Your task to perform on an android device: stop showing notifications on the lock screen Image 0: 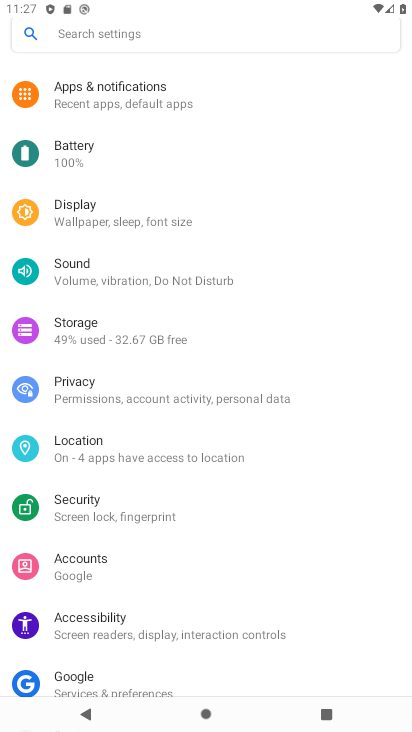
Step 0: click (159, 78)
Your task to perform on an android device: stop showing notifications on the lock screen Image 1: 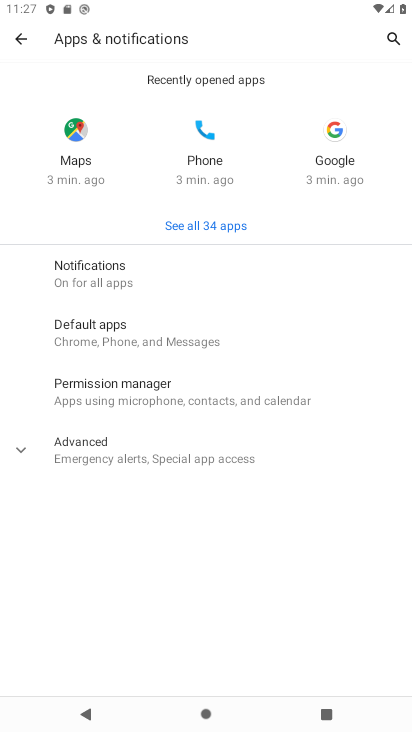
Step 1: click (19, 30)
Your task to perform on an android device: stop showing notifications on the lock screen Image 2: 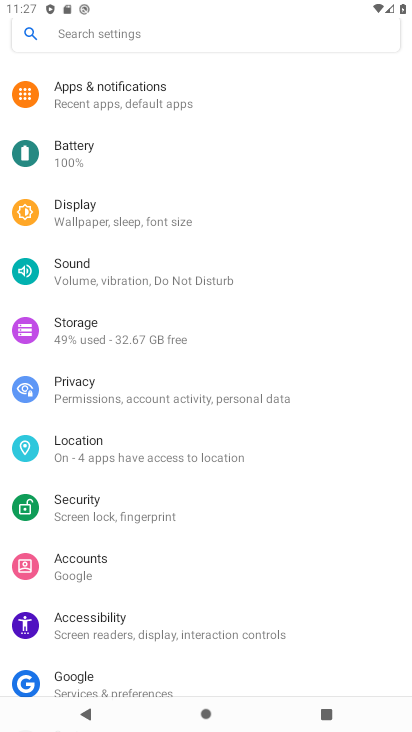
Step 2: click (69, 90)
Your task to perform on an android device: stop showing notifications on the lock screen Image 3: 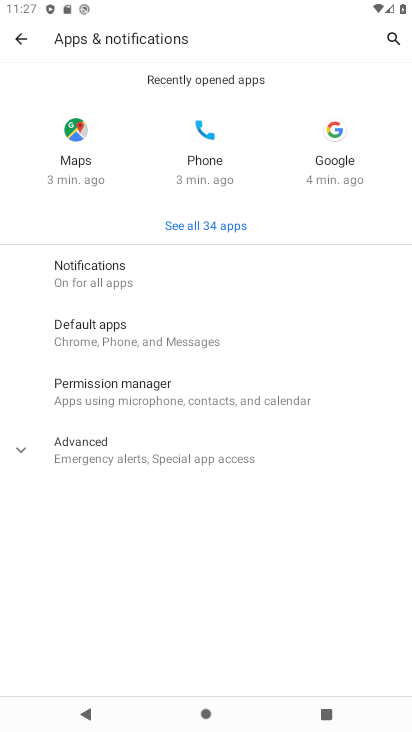
Step 3: click (83, 281)
Your task to perform on an android device: stop showing notifications on the lock screen Image 4: 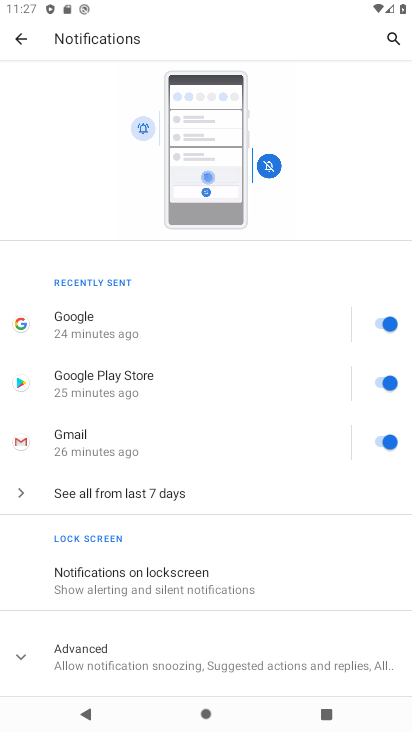
Step 4: click (160, 597)
Your task to perform on an android device: stop showing notifications on the lock screen Image 5: 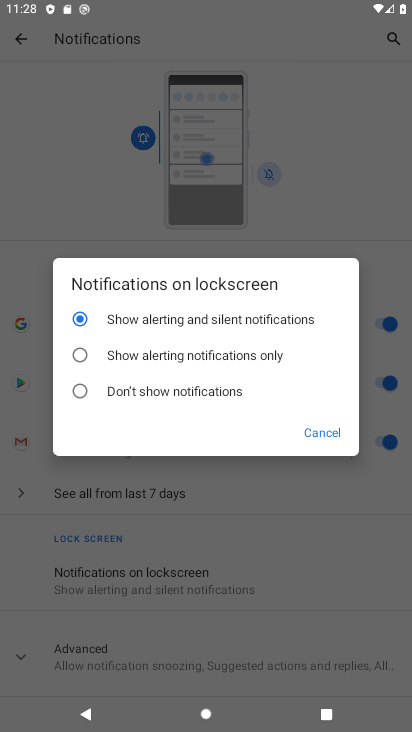
Step 5: click (147, 349)
Your task to perform on an android device: stop showing notifications on the lock screen Image 6: 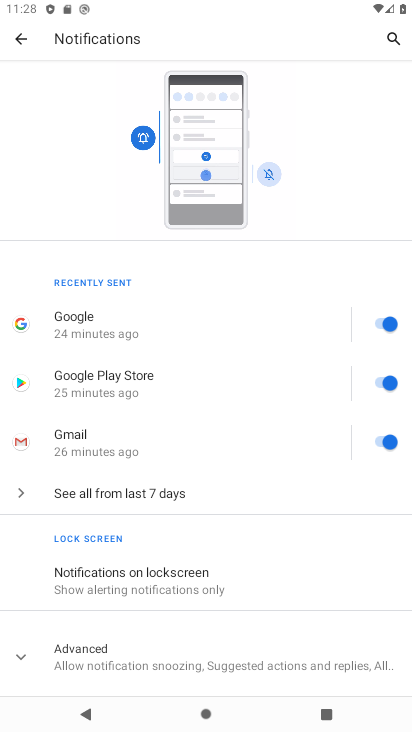
Step 6: task complete